Your task to perform on an android device: change the clock display to digital Image 0: 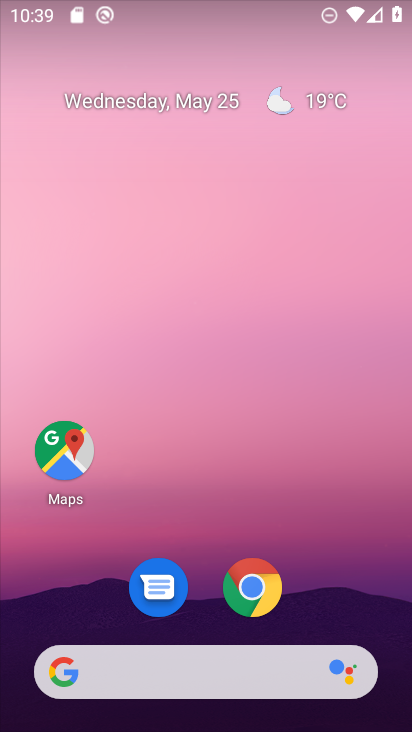
Step 0: drag from (387, 602) to (357, 110)
Your task to perform on an android device: change the clock display to digital Image 1: 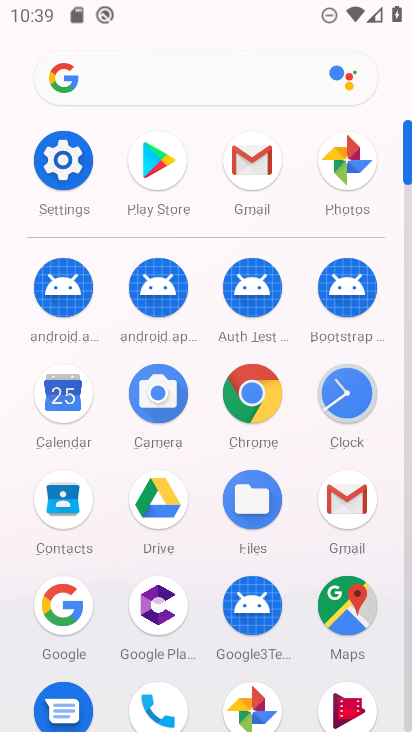
Step 1: click (345, 387)
Your task to perform on an android device: change the clock display to digital Image 2: 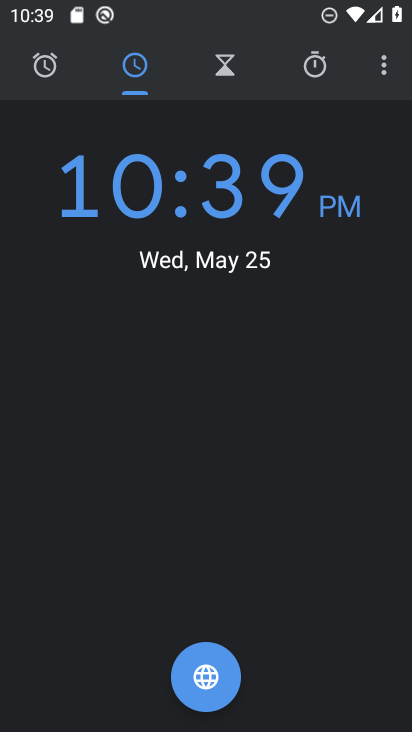
Step 2: click (381, 72)
Your task to perform on an android device: change the clock display to digital Image 3: 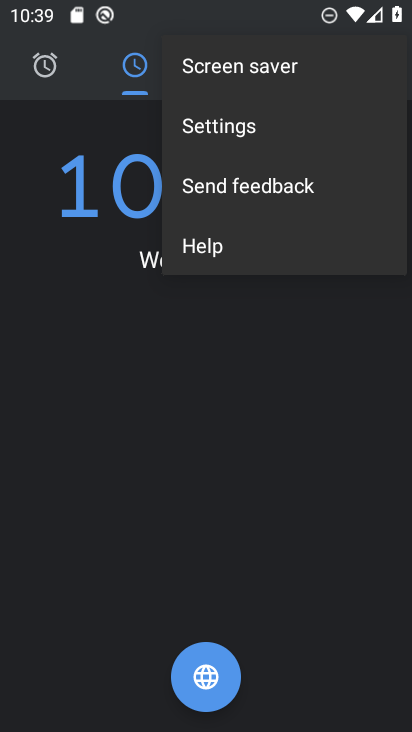
Step 3: click (248, 131)
Your task to perform on an android device: change the clock display to digital Image 4: 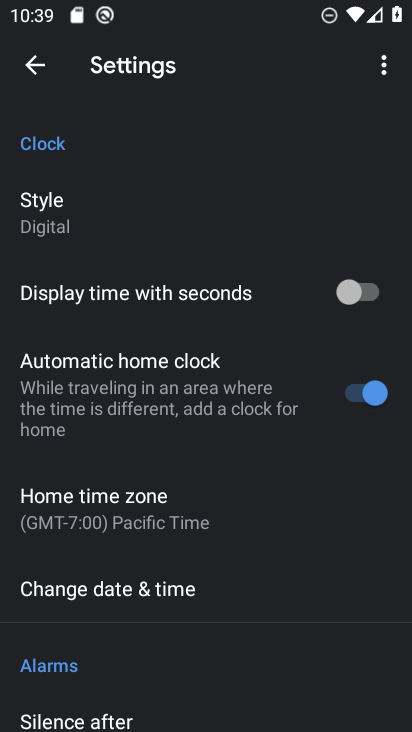
Step 4: task complete